Your task to perform on an android device: When is my next appointment? Image 0: 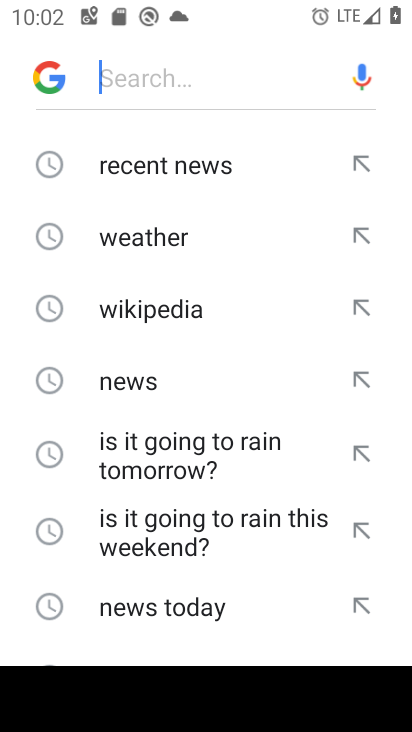
Step 0: press home button
Your task to perform on an android device: When is my next appointment? Image 1: 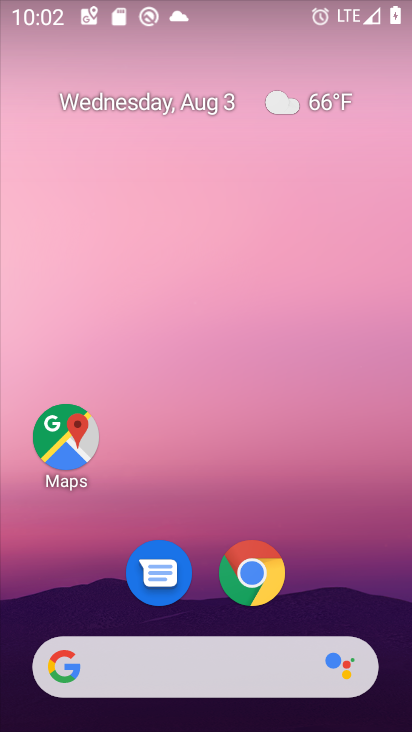
Step 1: drag from (335, 619) to (298, 11)
Your task to perform on an android device: When is my next appointment? Image 2: 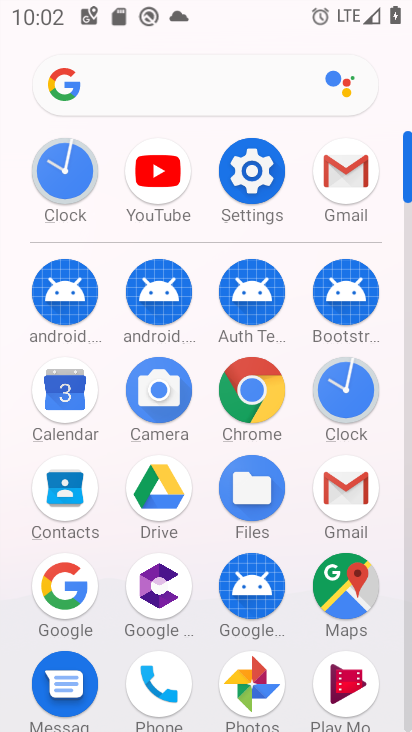
Step 2: click (43, 408)
Your task to perform on an android device: When is my next appointment? Image 3: 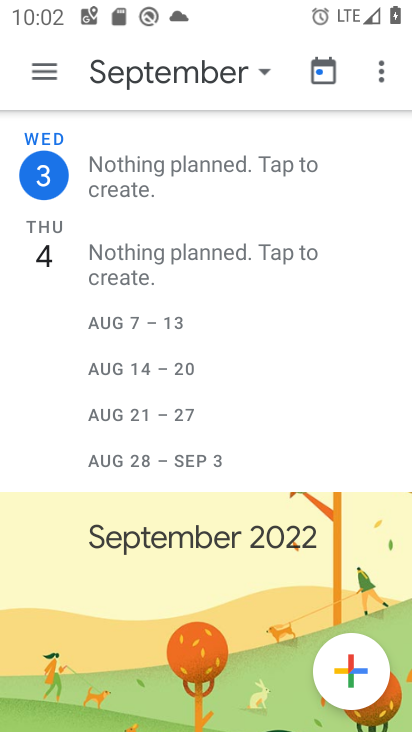
Step 3: click (53, 70)
Your task to perform on an android device: When is my next appointment? Image 4: 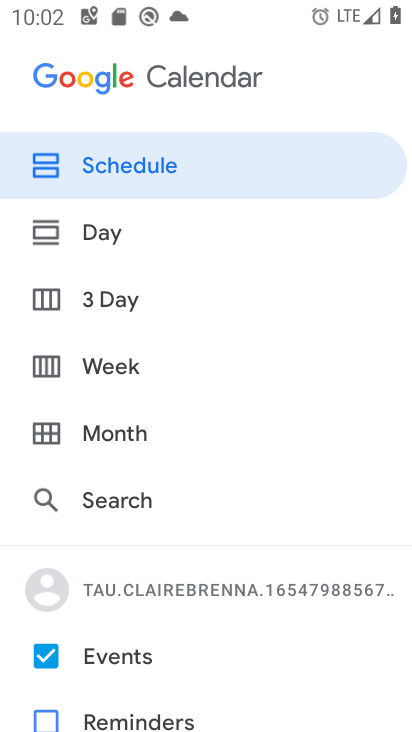
Step 4: click (94, 159)
Your task to perform on an android device: When is my next appointment? Image 5: 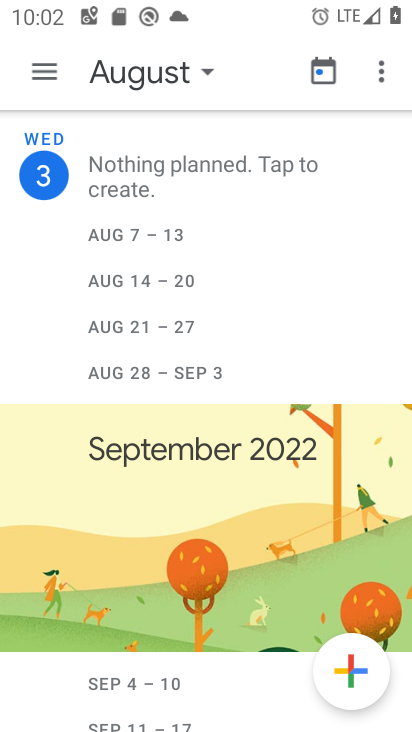
Step 5: task complete